Your task to perform on an android device: Go to Android settings Image 0: 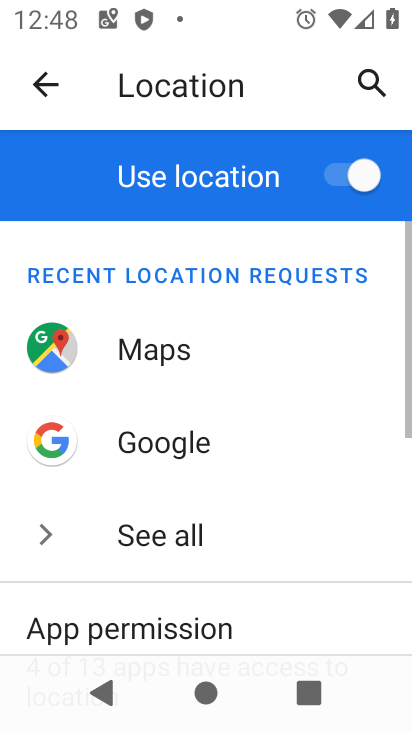
Step 0: click (386, 638)
Your task to perform on an android device: Go to Android settings Image 1: 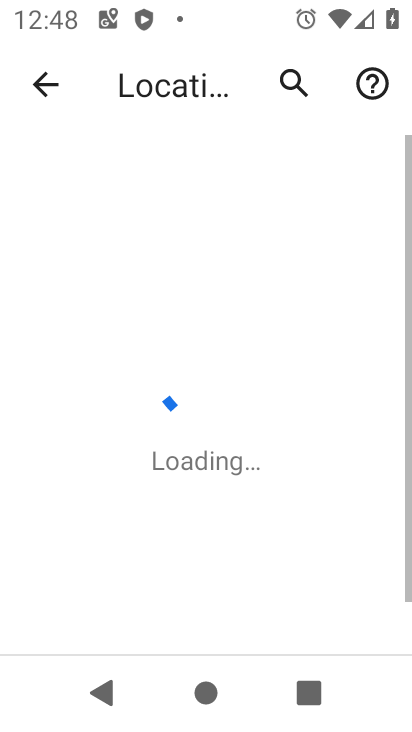
Step 1: press home button
Your task to perform on an android device: Go to Android settings Image 2: 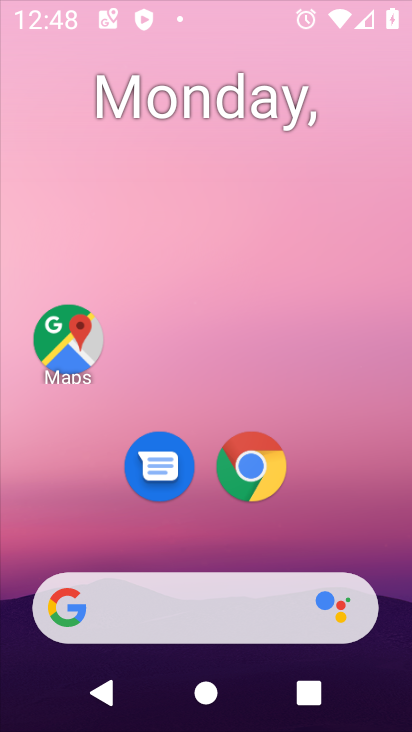
Step 2: drag from (383, 630) to (297, 2)
Your task to perform on an android device: Go to Android settings Image 3: 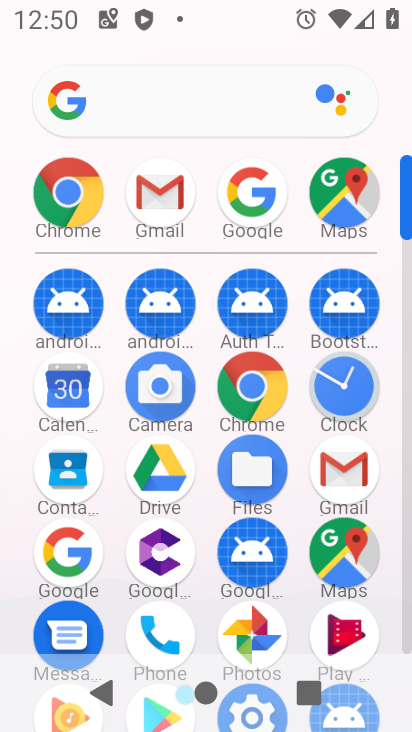
Step 3: drag from (205, 636) to (226, 185)
Your task to perform on an android device: Go to Android settings Image 4: 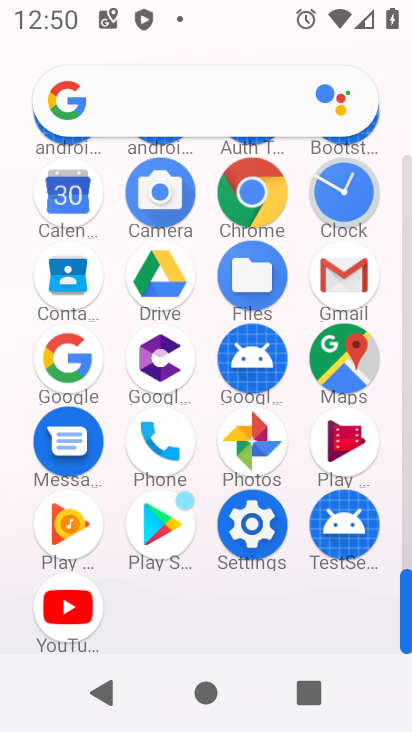
Step 4: click (256, 541)
Your task to perform on an android device: Go to Android settings Image 5: 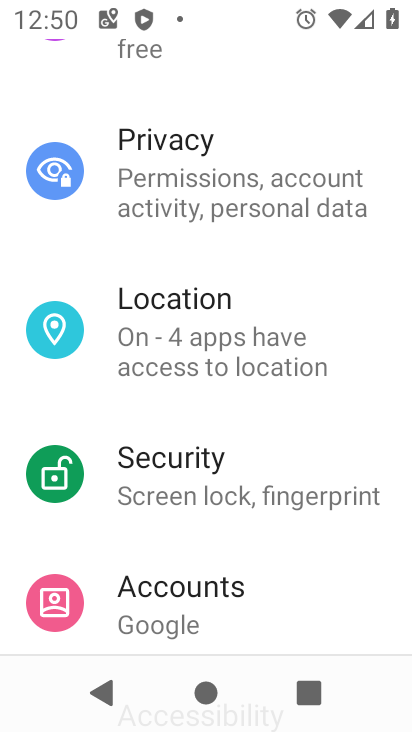
Step 5: drag from (190, 623) to (266, 29)
Your task to perform on an android device: Go to Android settings Image 6: 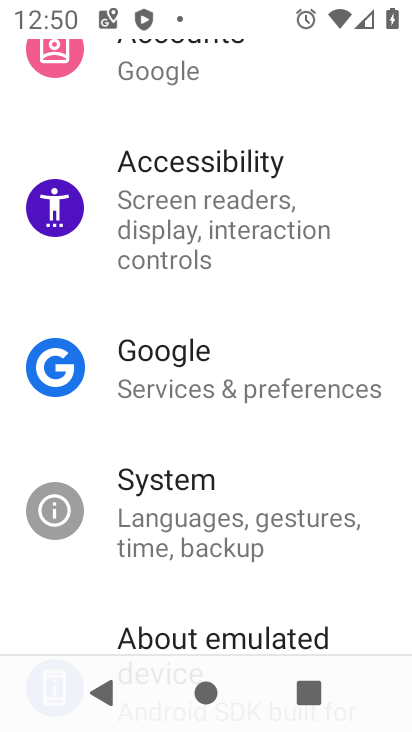
Step 6: drag from (255, 600) to (328, 79)
Your task to perform on an android device: Go to Android settings Image 7: 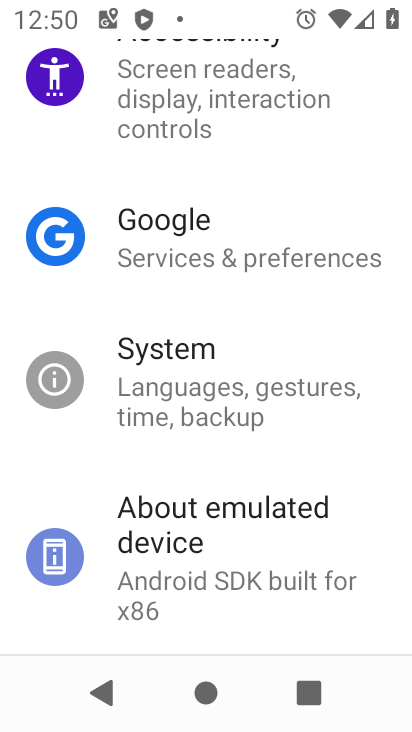
Step 7: click (188, 575)
Your task to perform on an android device: Go to Android settings Image 8: 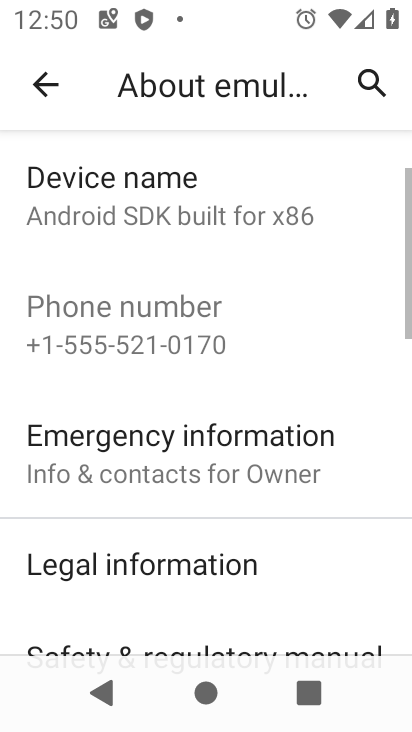
Step 8: drag from (188, 575) to (225, 204)
Your task to perform on an android device: Go to Android settings Image 9: 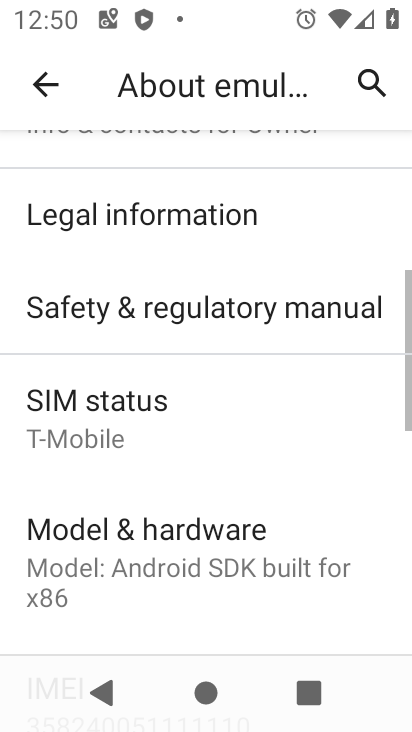
Step 9: drag from (163, 608) to (253, 258)
Your task to perform on an android device: Go to Android settings Image 10: 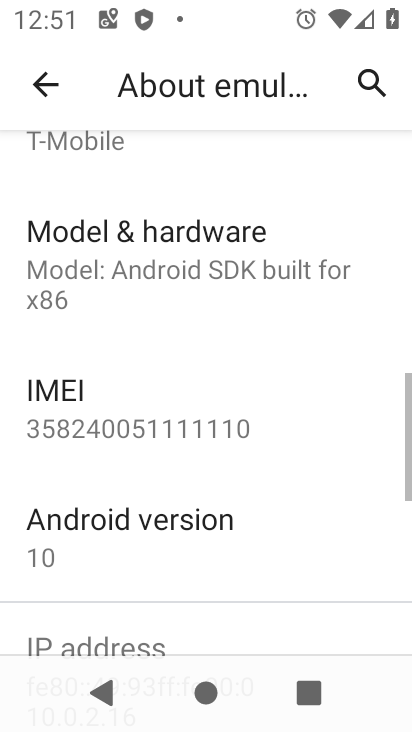
Step 10: click (241, 549)
Your task to perform on an android device: Go to Android settings Image 11: 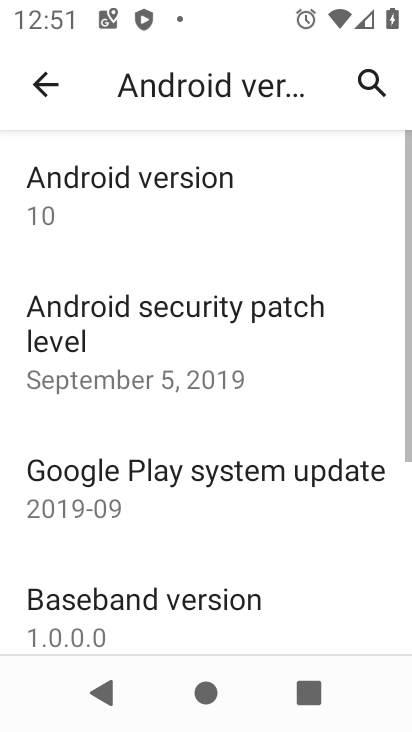
Step 11: task complete